Your task to perform on an android device: check storage Image 0: 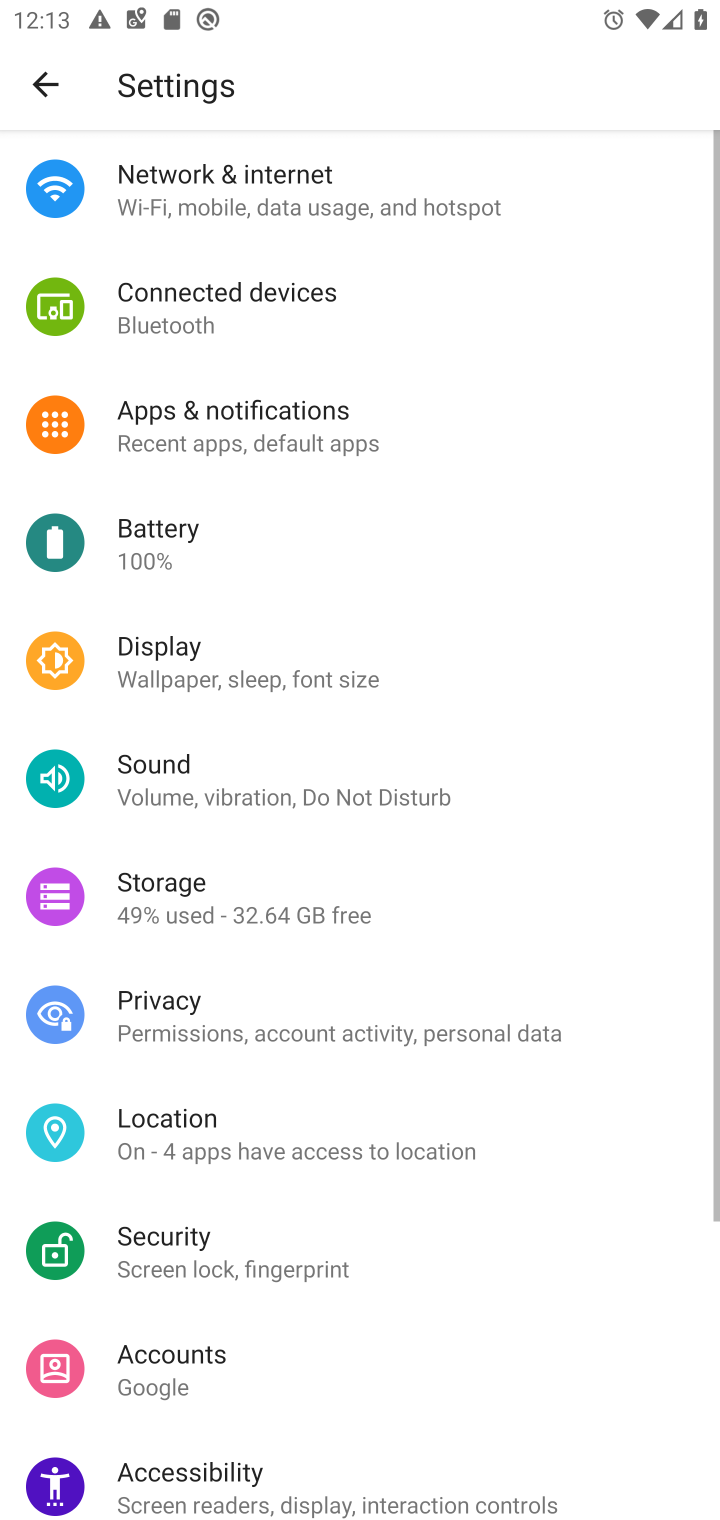
Step 0: click (184, 903)
Your task to perform on an android device: check storage Image 1: 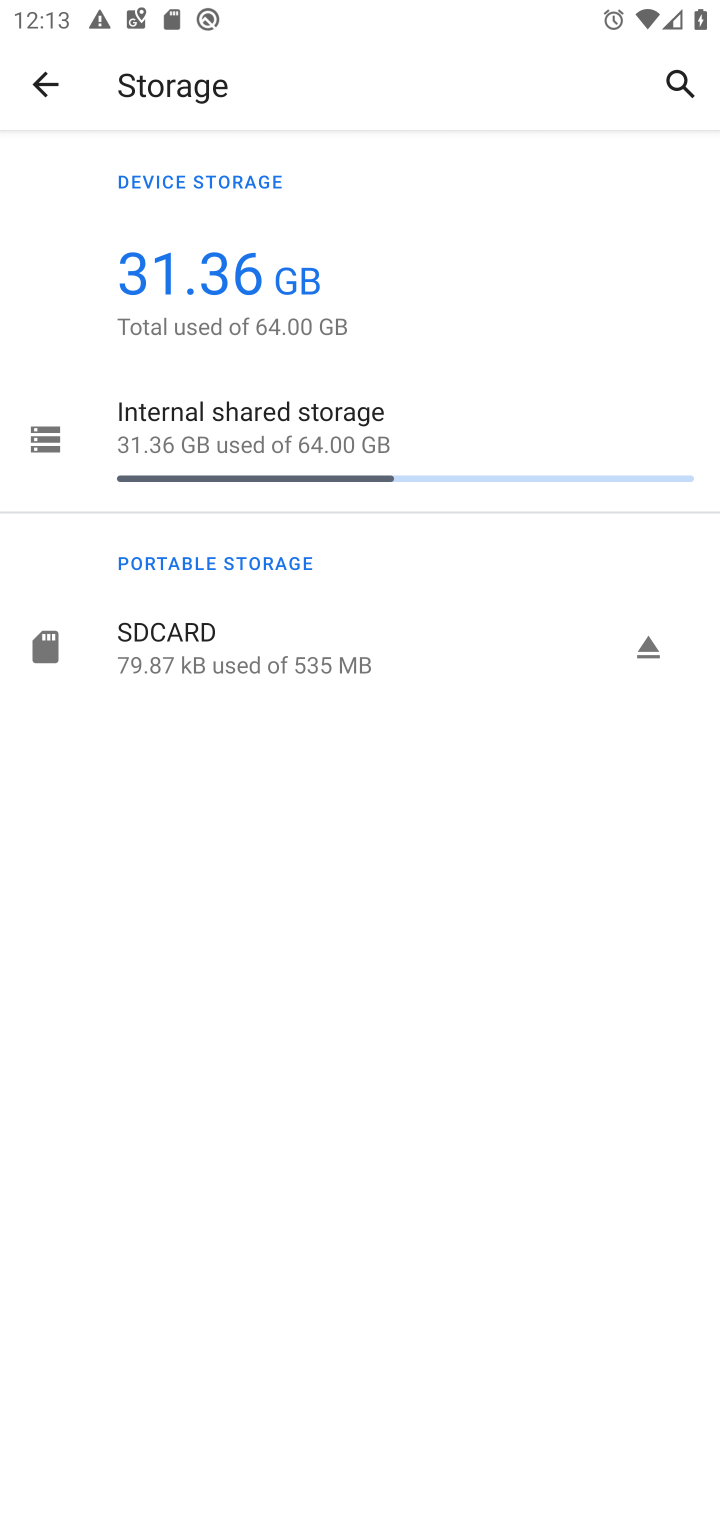
Step 1: task complete